Your task to perform on an android device: turn off notifications in google photos Image 0: 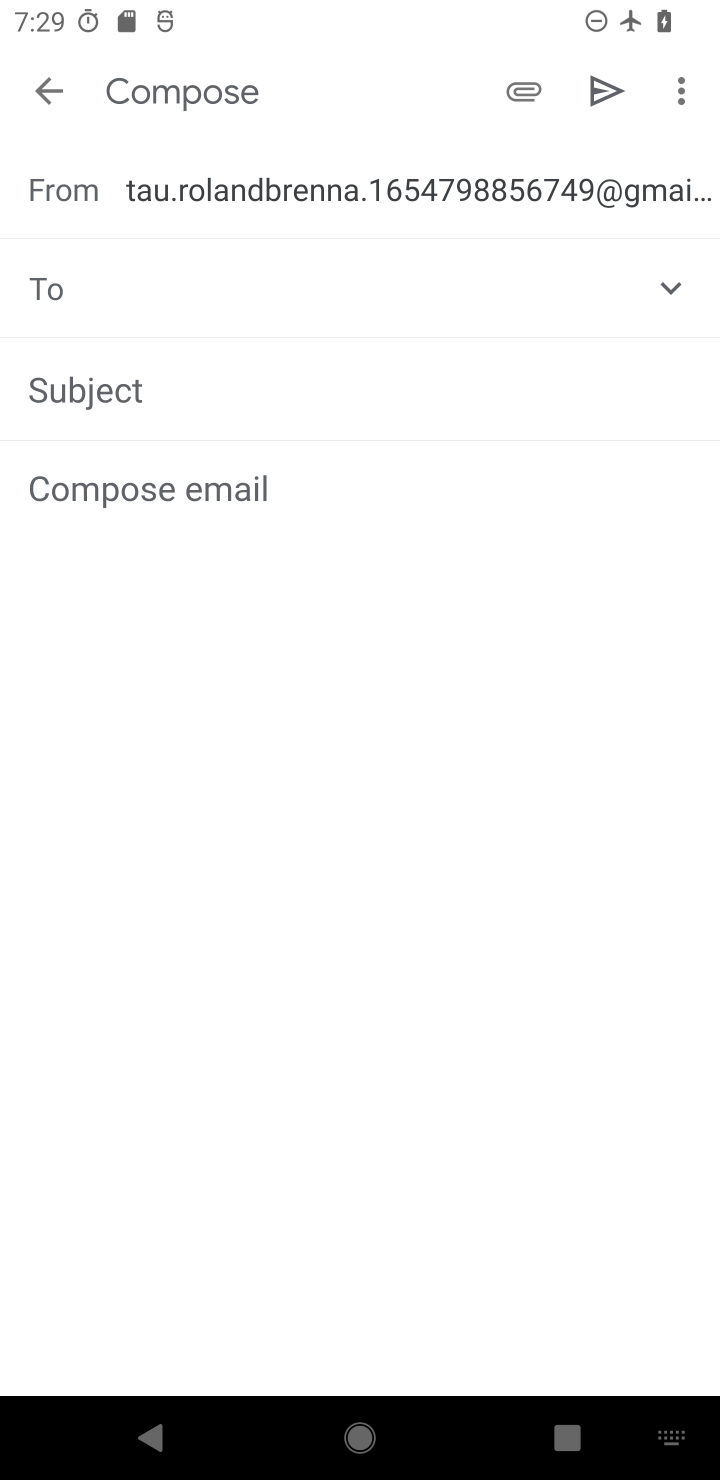
Step 0: press home button
Your task to perform on an android device: turn off notifications in google photos Image 1: 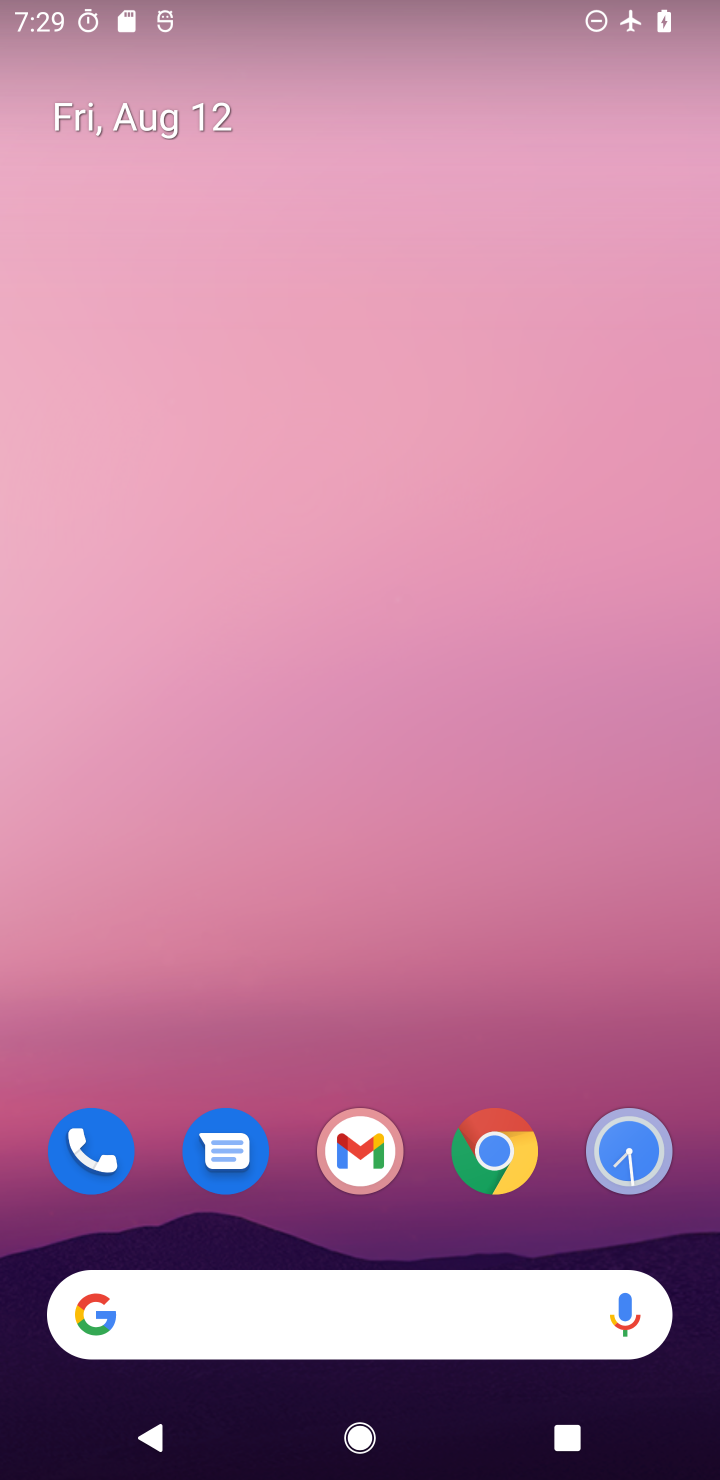
Step 1: drag from (438, 797) to (413, 119)
Your task to perform on an android device: turn off notifications in google photos Image 2: 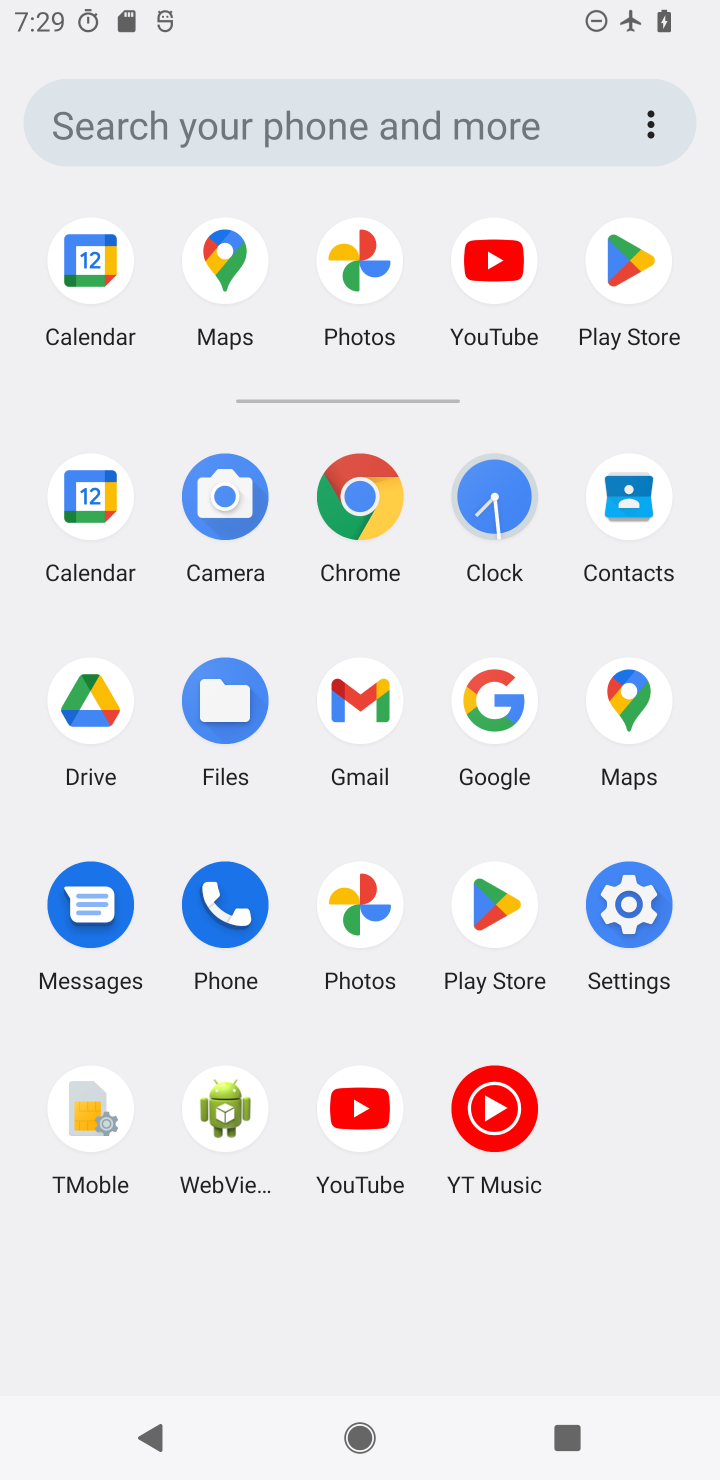
Step 2: click (347, 887)
Your task to perform on an android device: turn off notifications in google photos Image 3: 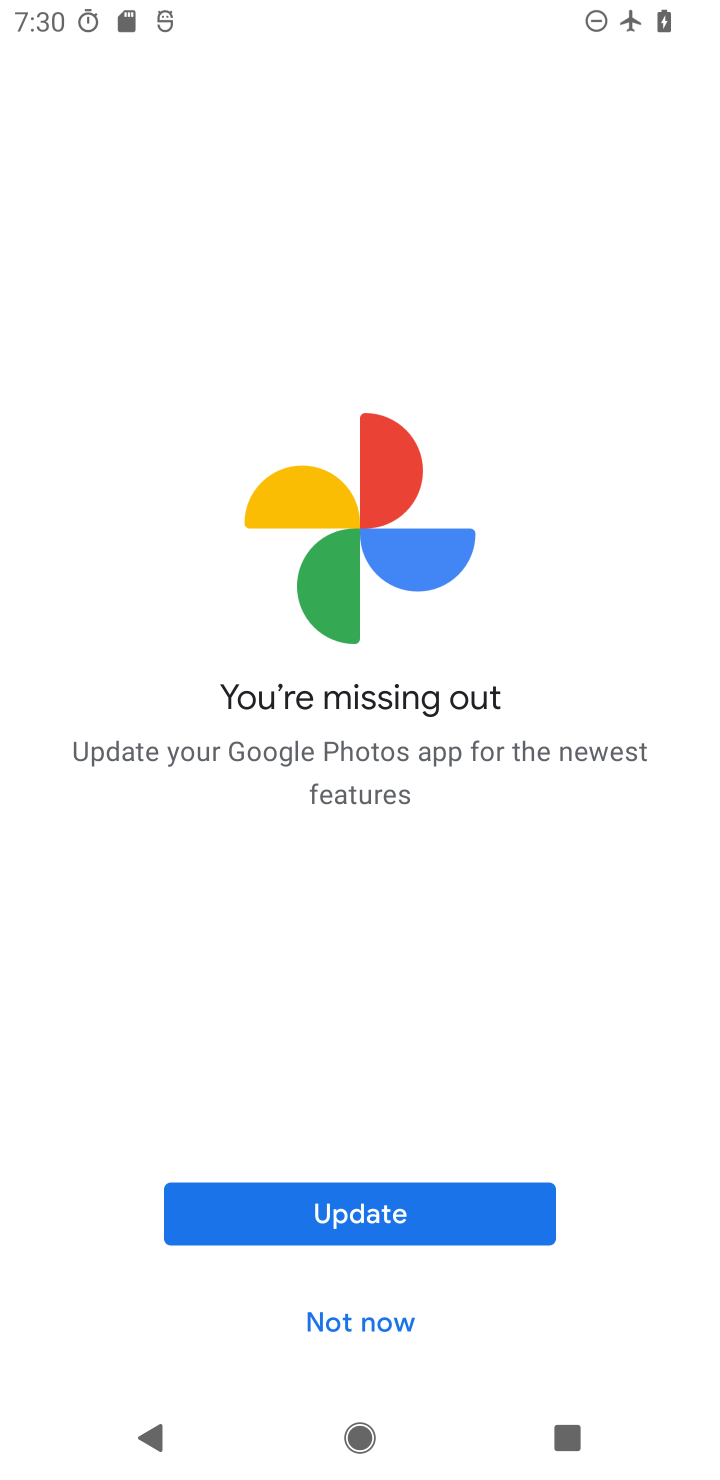
Step 3: click (383, 1313)
Your task to perform on an android device: turn off notifications in google photos Image 4: 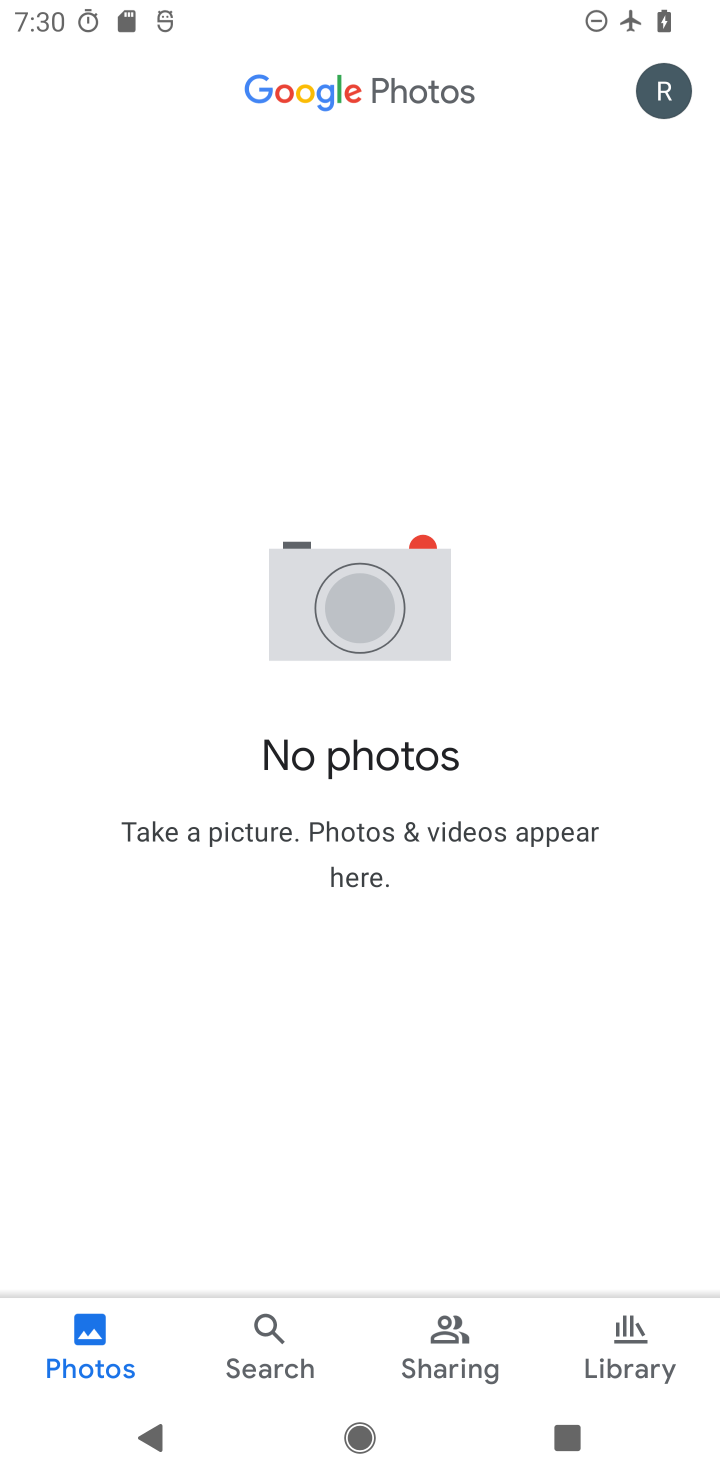
Step 4: click (655, 86)
Your task to perform on an android device: turn off notifications in google photos Image 5: 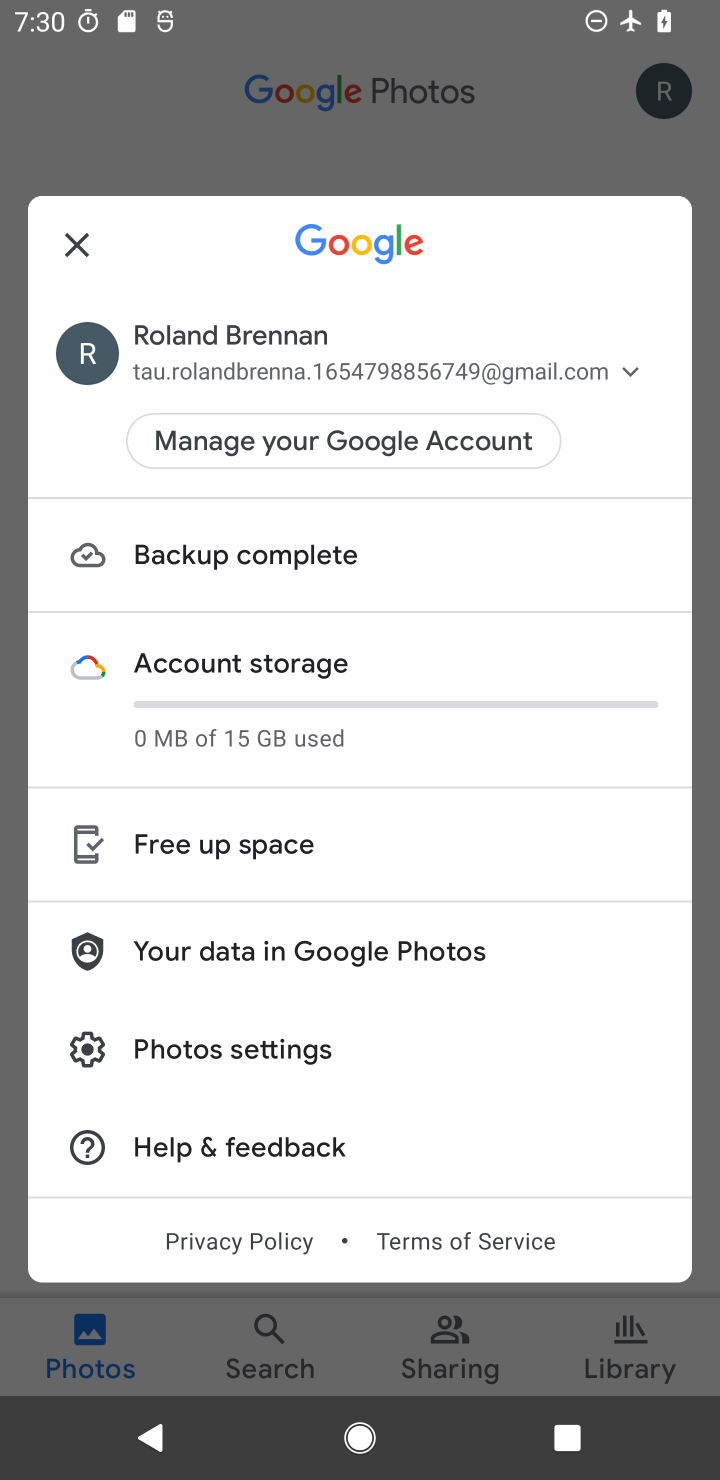
Step 5: click (246, 1031)
Your task to perform on an android device: turn off notifications in google photos Image 6: 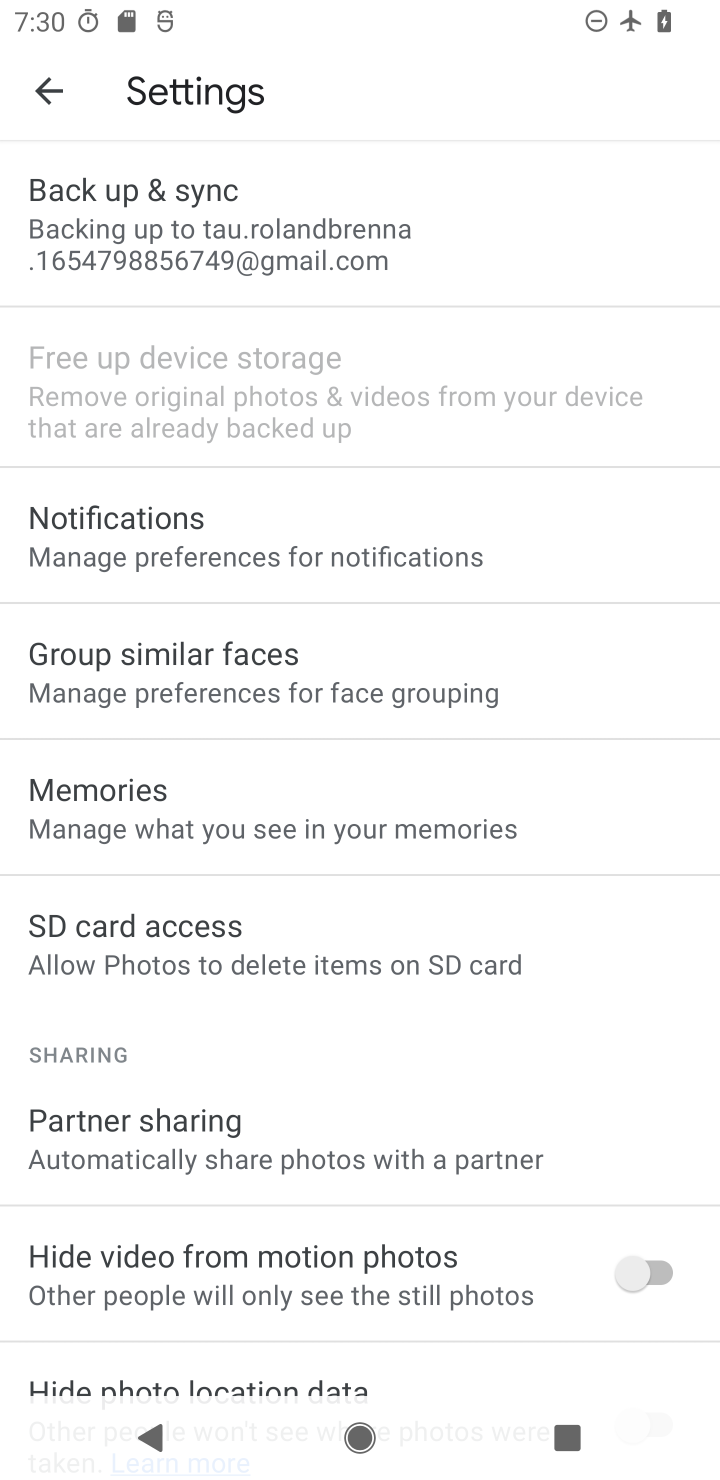
Step 6: click (261, 553)
Your task to perform on an android device: turn off notifications in google photos Image 7: 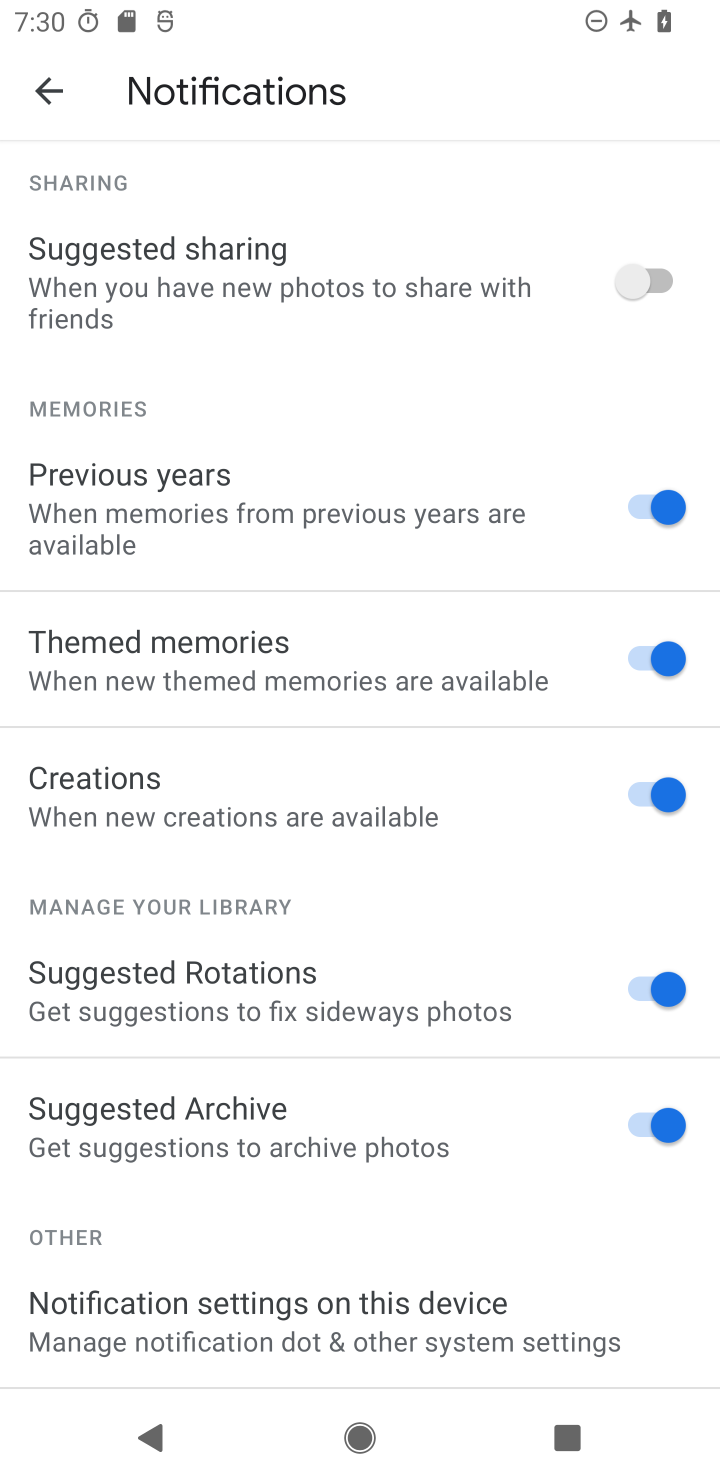
Step 7: drag from (331, 1132) to (475, 259)
Your task to perform on an android device: turn off notifications in google photos Image 8: 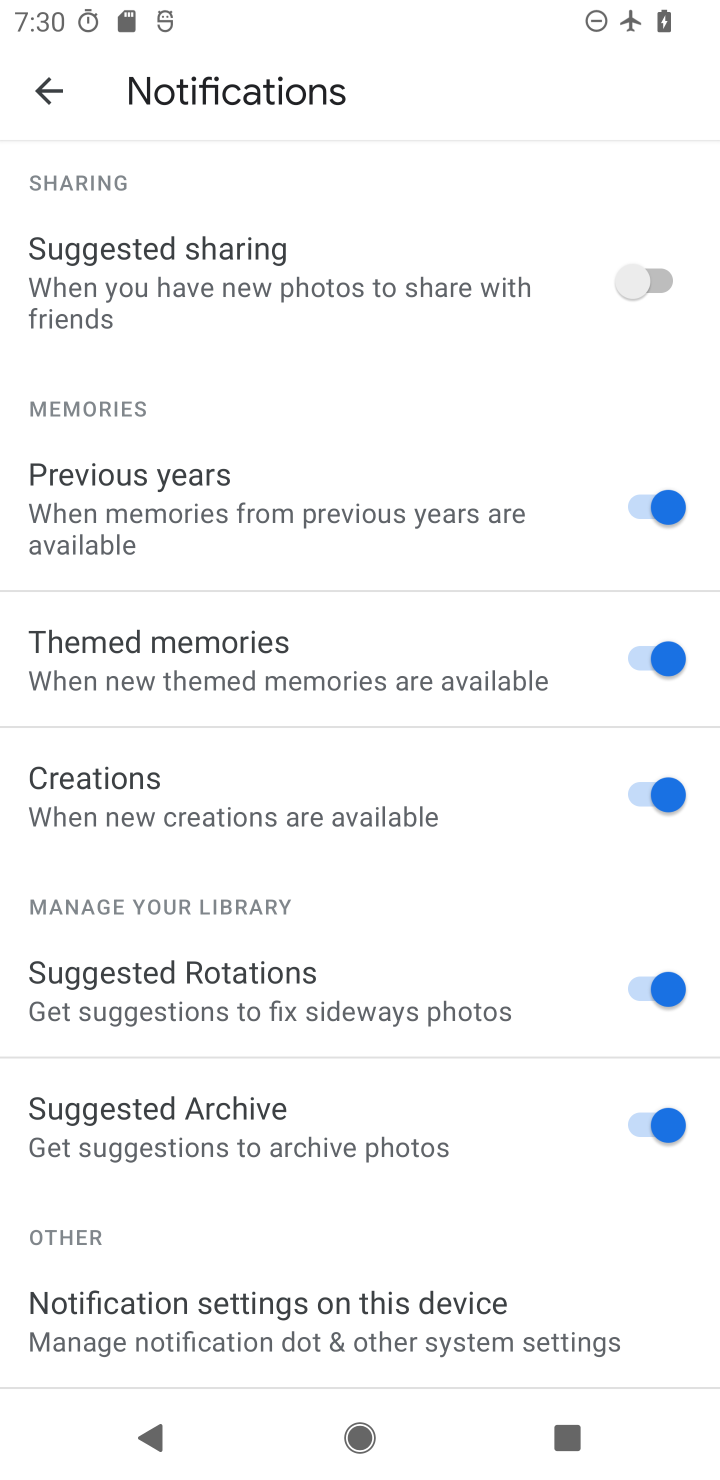
Step 8: click (337, 1346)
Your task to perform on an android device: turn off notifications in google photos Image 9: 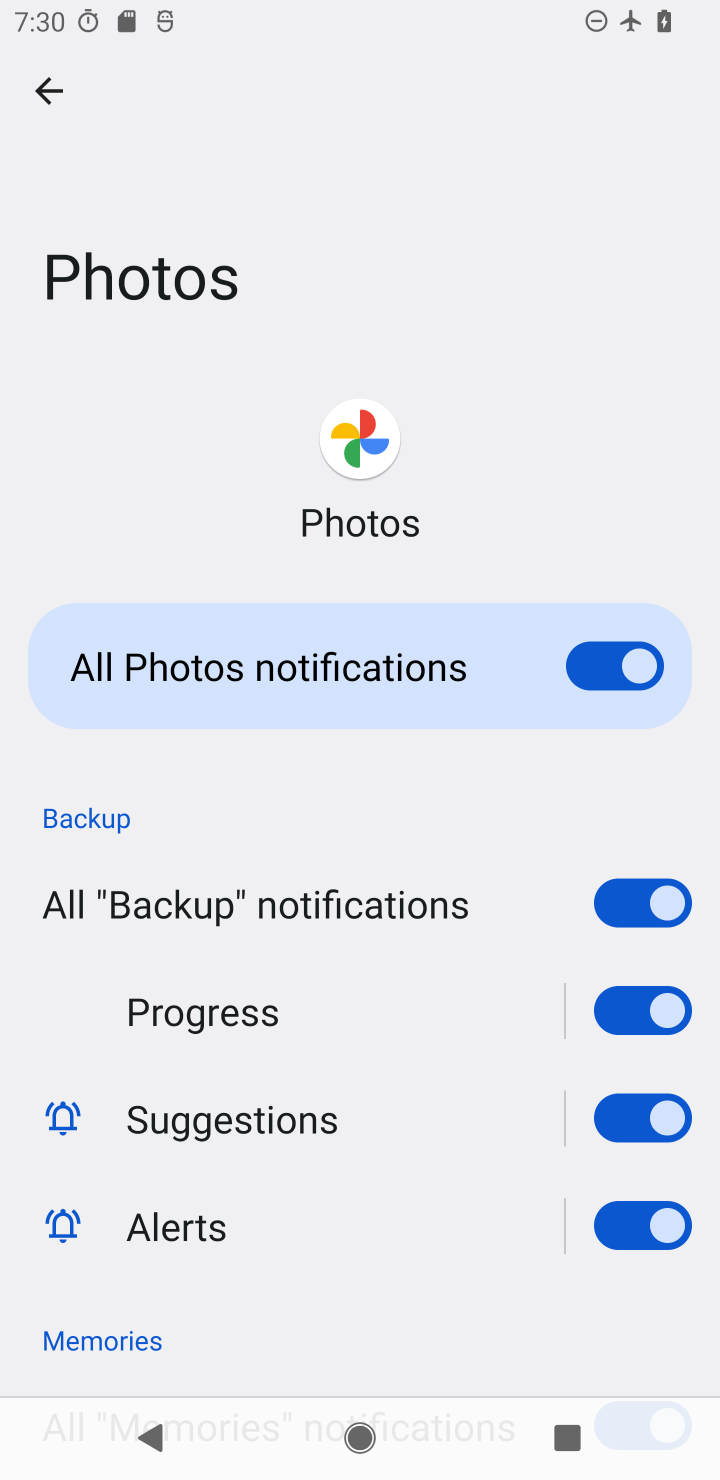
Step 9: click (585, 653)
Your task to perform on an android device: turn off notifications in google photos Image 10: 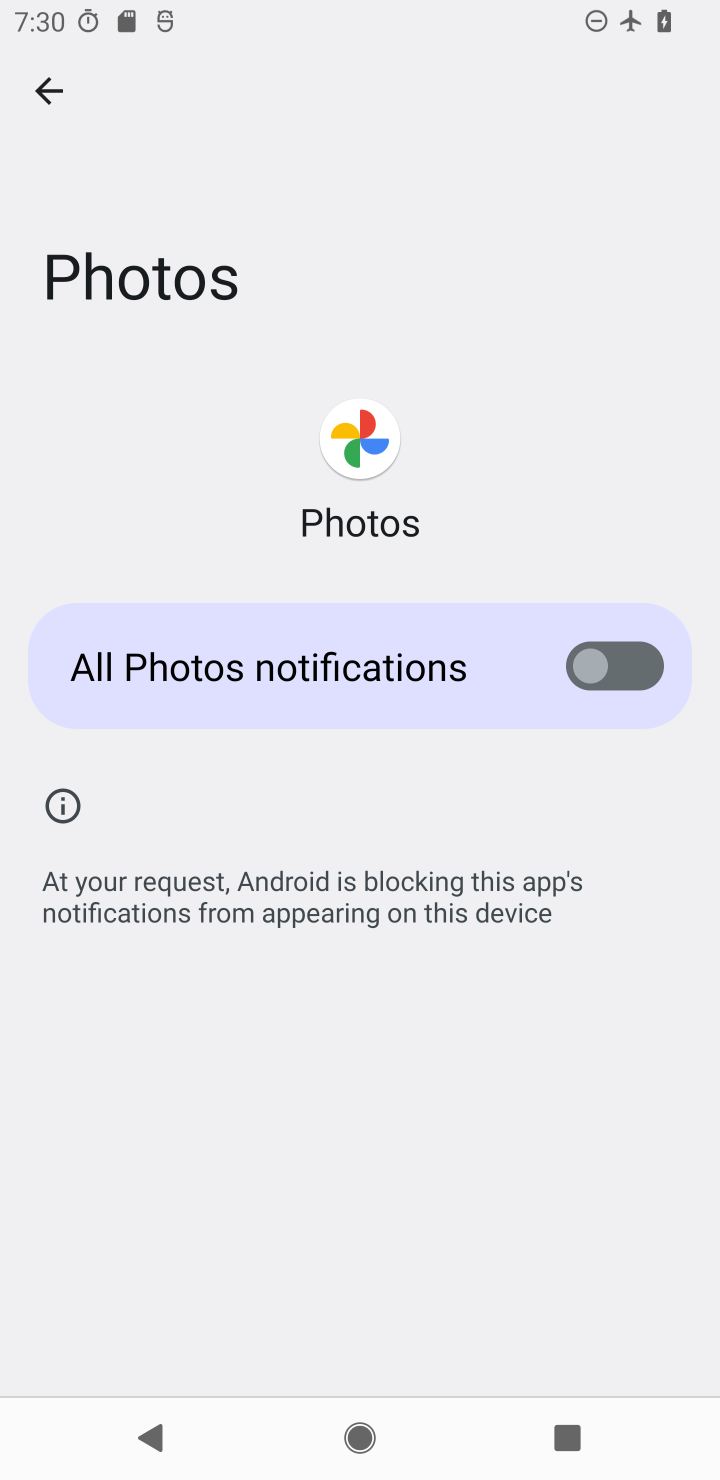
Step 10: task complete